Your task to perform on an android device: Go to Amazon Image 0: 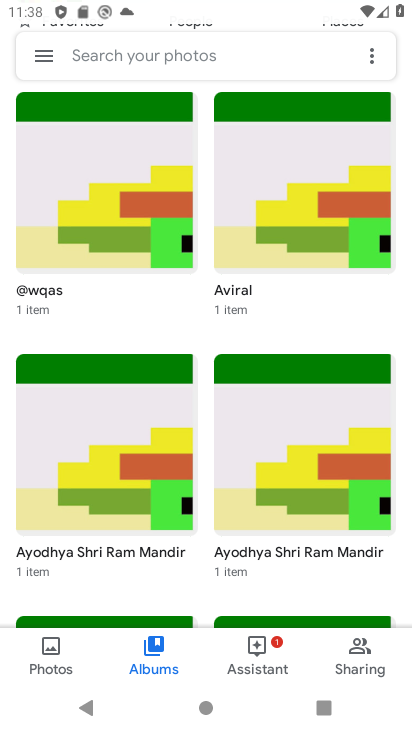
Step 0: press home button
Your task to perform on an android device: Go to Amazon Image 1: 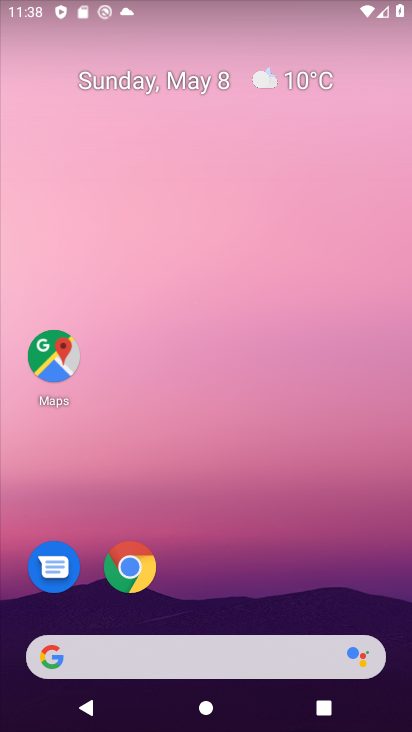
Step 1: click (131, 586)
Your task to perform on an android device: Go to Amazon Image 2: 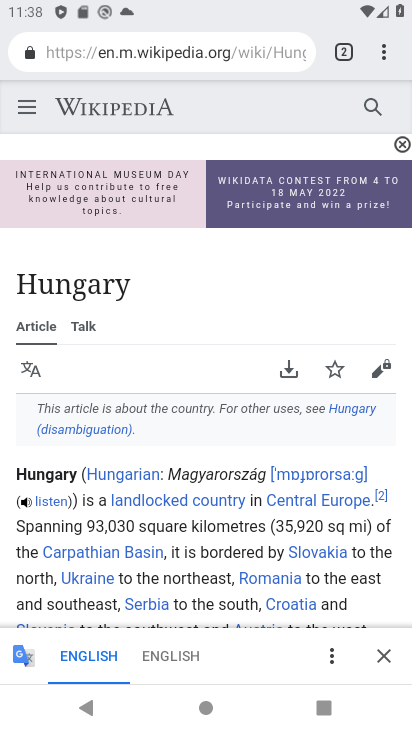
Step 2: click (271, 40)
Your task to perform on an android device: Go to Amazon Image 3: 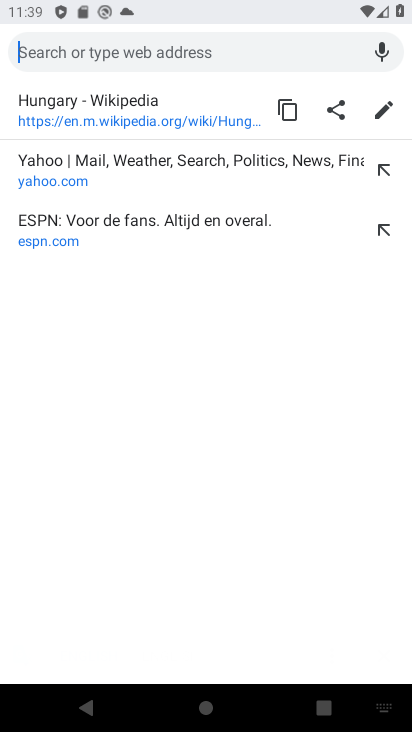
Step 3: type "amazon"
Your task to perform on an android device: Go to Amazon Image 4: 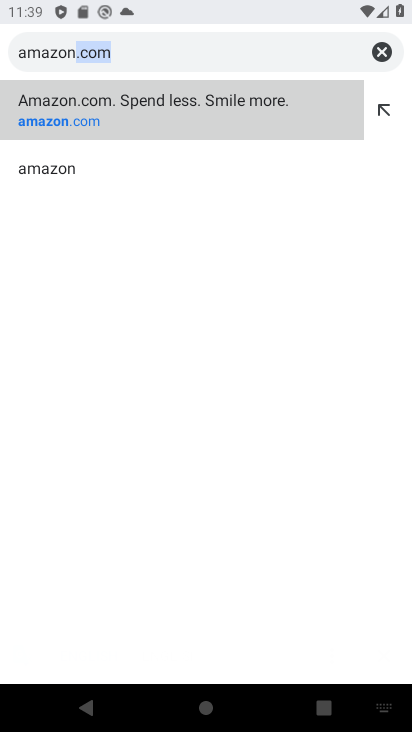
Step 4: click (285, 106)
Your task to perform on an android device: Go to Amazon Image 5: 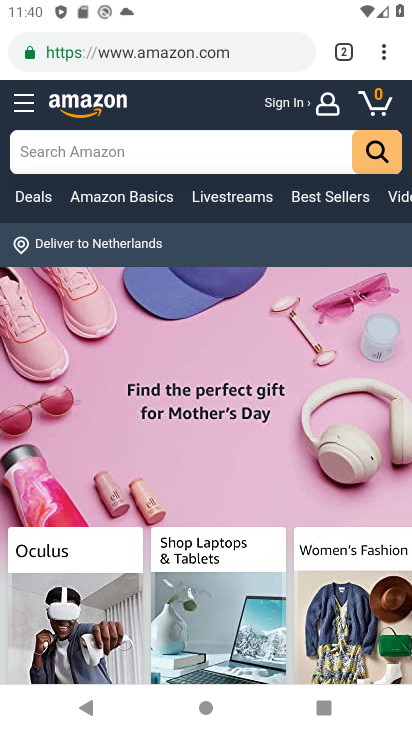
Step 5: task complete